Your task to perform on an android device: Open Reddit.com Image 0: 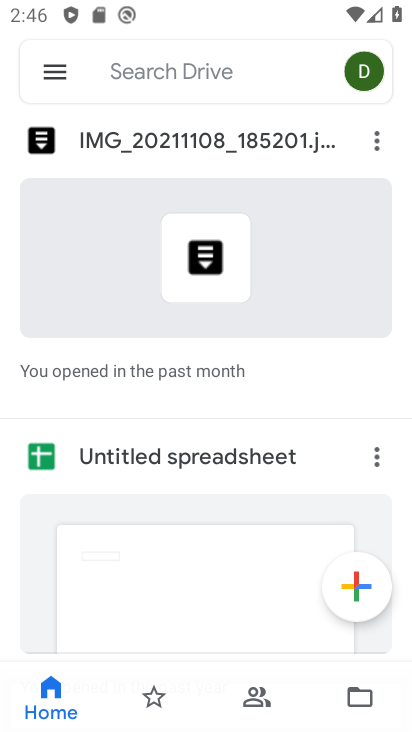
Step 0: press home button
Your task to perform on an android device: Open Reddit.com Image 1: 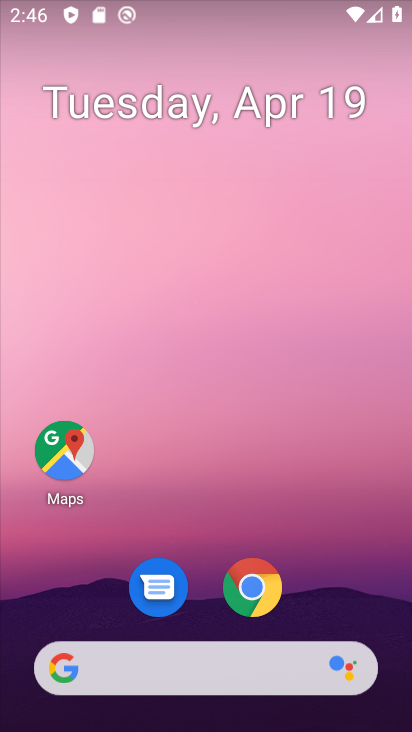
Step 1: click (241, 576)
Your task to perform on an android device: Open Reddit.com Image 2: 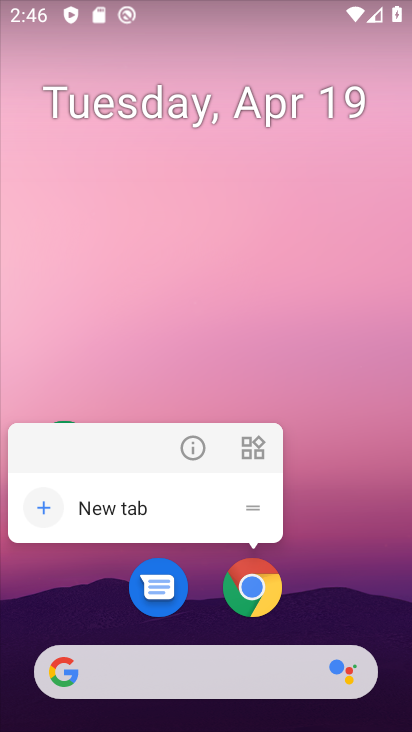
Step 2: click (242, 579)
Your task to perform on an android device: Open Reddit.com Image 3: 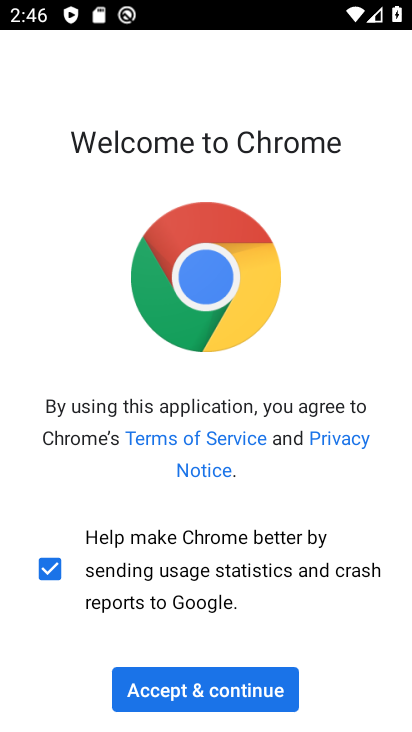
Step 3: click (207, 707)
Your task to perform on an android device: Open Reddit.com Image 4: 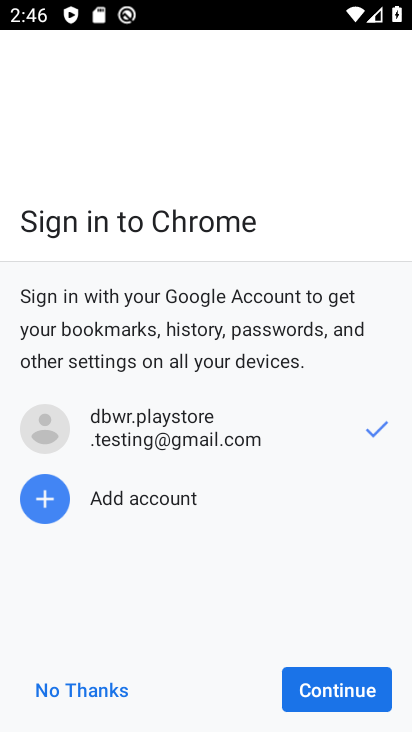
Step 4: click (312, 695)
Your task to perform on an android device: Open Reddit.com Image 5: 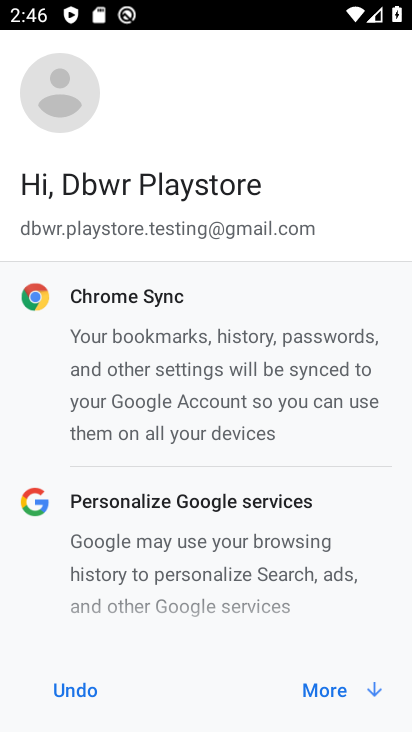
Step 5: click (312, 695)
Your task to perform on an android device: Open Reddit.com Image 6: 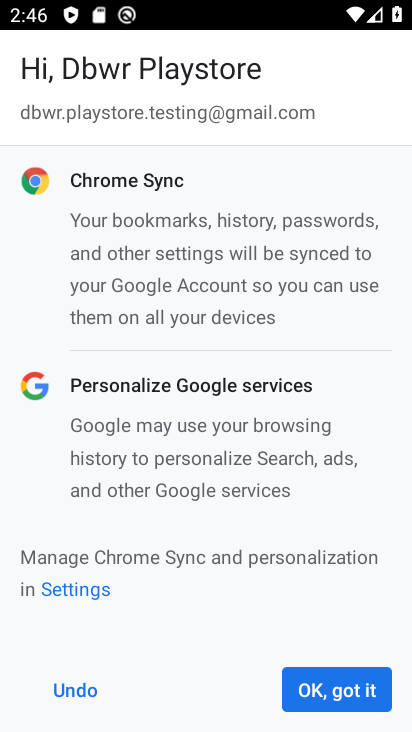
Step 6: click (312, 695)
Your task to perform on an android device: Open Reddit.com Image 7: 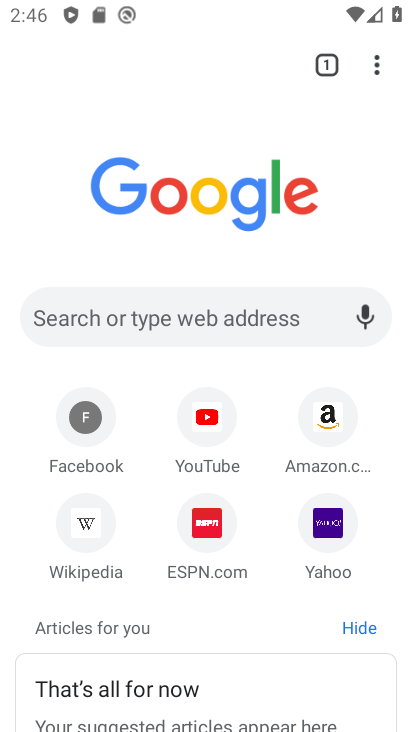
Step 7: click (220, 316)
Your task to perform on an android device: Open Reddit.com Image 8: 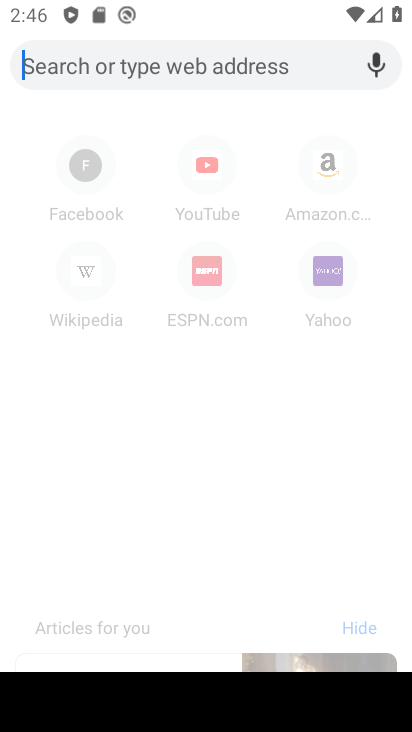
Step 8: type "reddit.com"
Your task to perform on an android device: Open Reddit.com Image 9: 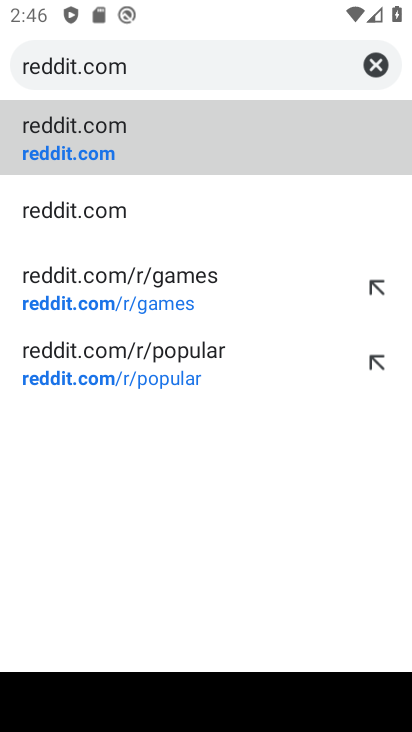
Step 9: click (197, 153)
Your task to perform on an android device: Open Reddit.com Image 10: 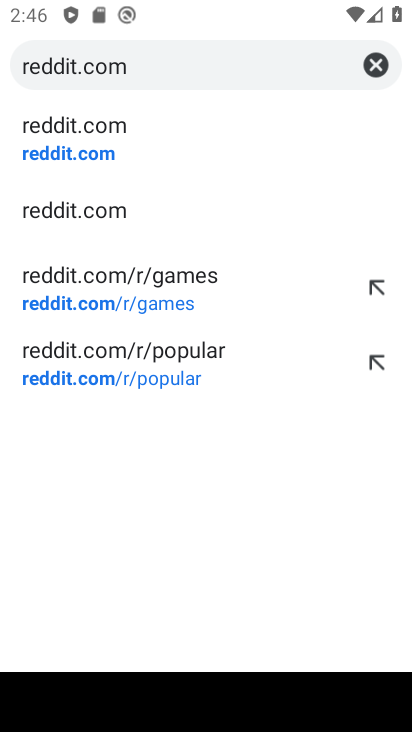
Step 10: click (167, 163)
Your task to perform on an android device: Open Reddit.com Image 11: 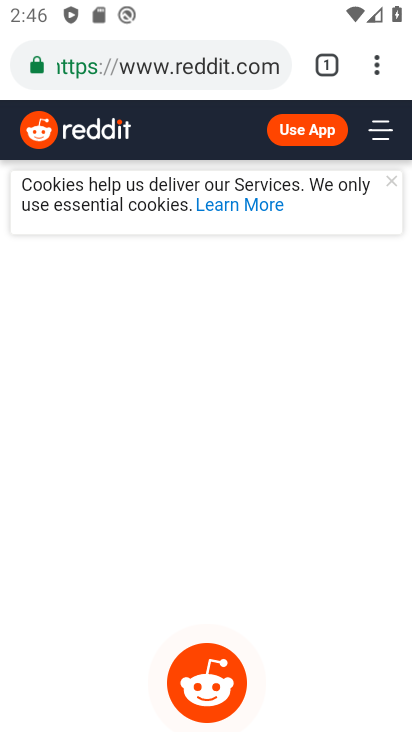
Step 11: task complete